Your task to perform on an android device: turn off sleep mode Image 0: 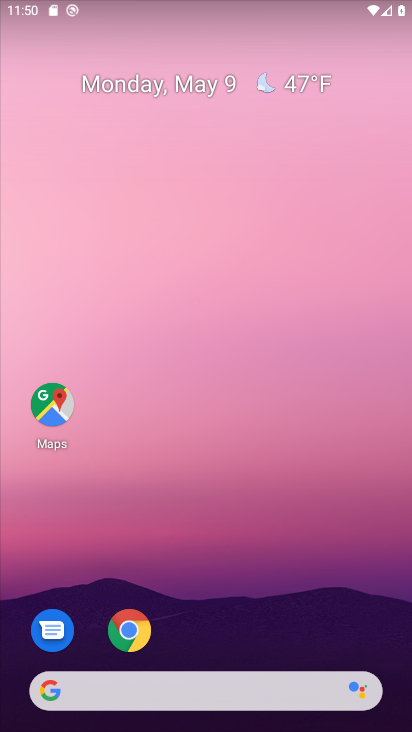
Step 0: drag from (246, 636) to (84, 103)
Your task to perform on an android device: turn off sleep mode Image 1: 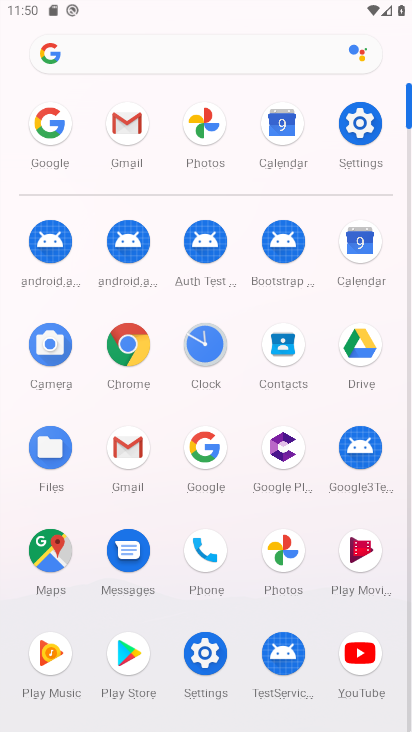
Step 1: click (370, 130)
Your task to perform on an android device: turn off sleep mode Image 2: 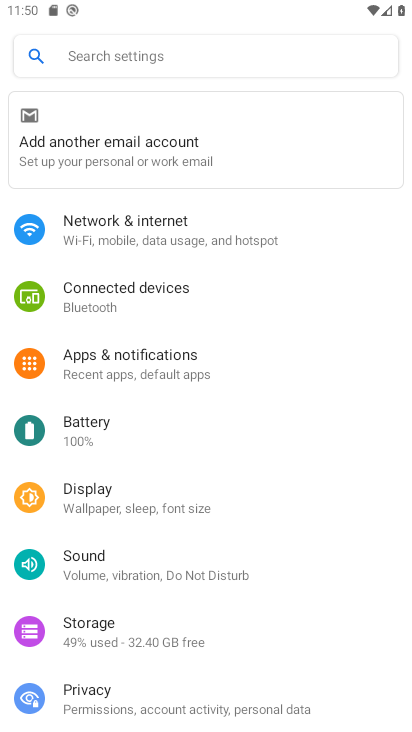
Step 2: click (163, 508)
Your task to perform on an android device: turn off sleep mode Image 3: 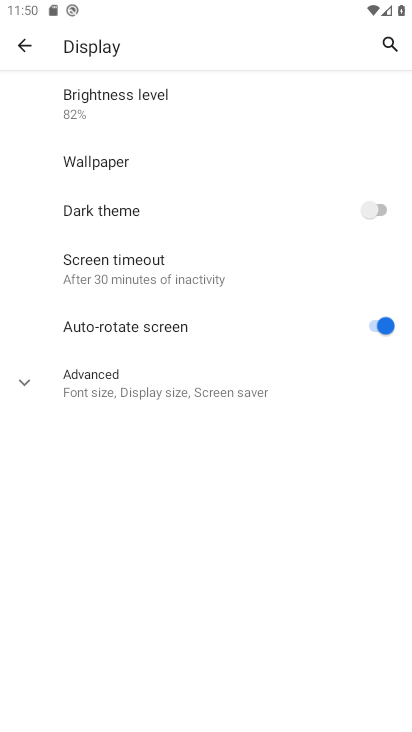
Step 3: click (147, 393)
Your task to perform on an android device: turn off sleep mode Image 4: 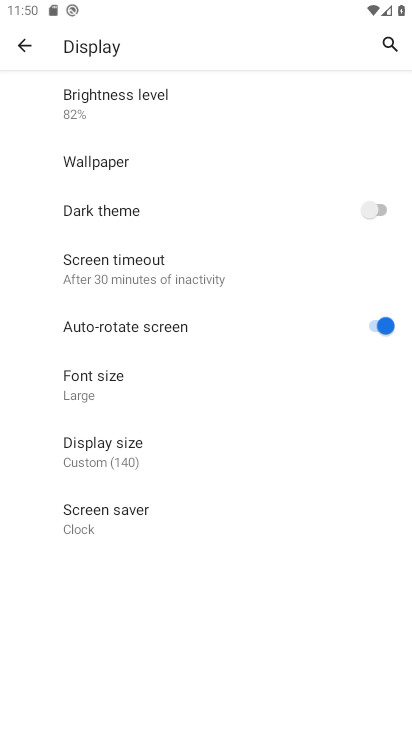
Step 4: task complete